Your task to perform on an android device: open chrome and create a bookmark for the current page Image 0: 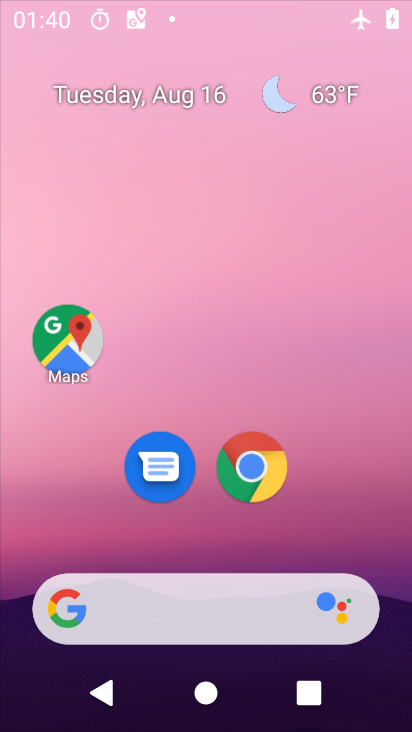
Step 0: press home button
Your task to perform on an android device: open chrome and create a bookmark for the current page Image 1: 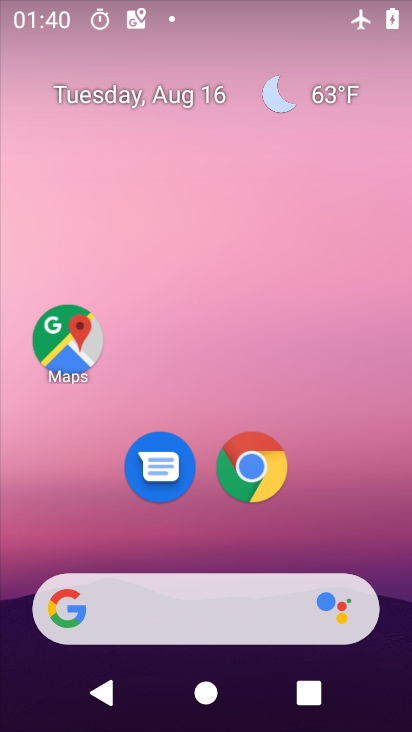
Step 1: drag from (379, 546) to (403, 155)
Your task to perform on an android device: open chrome and create a bookmark for the current page Image 2: 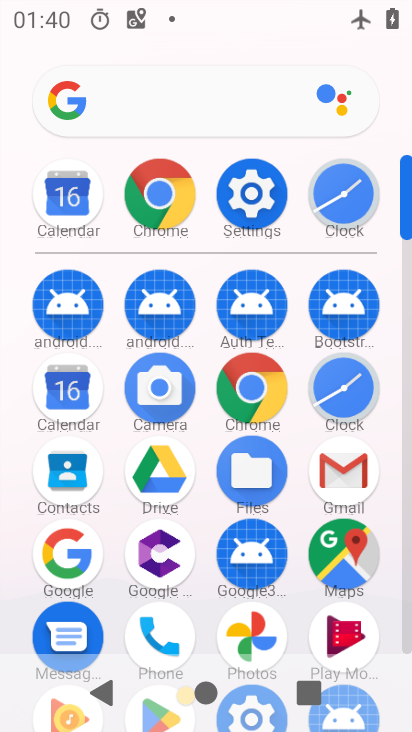
Step 2: click (264, 395)
Your task to perform on an android device: open chrome and create a bookmark for the current page Image 3: 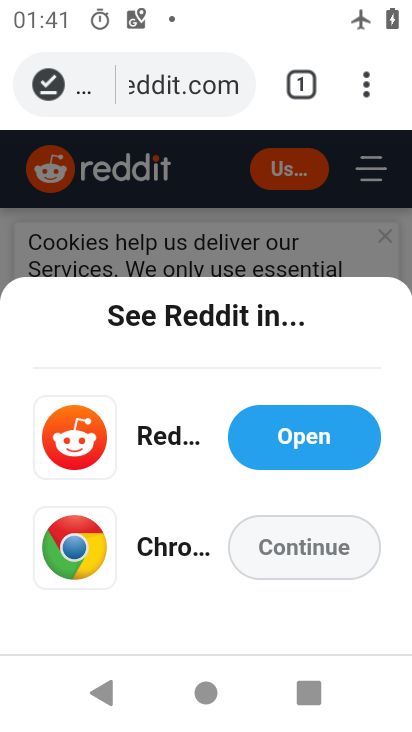
Step 3: click (368, 76)
Your task to perform on an android device: open chrome and create a bookmark for the current page Image 4: 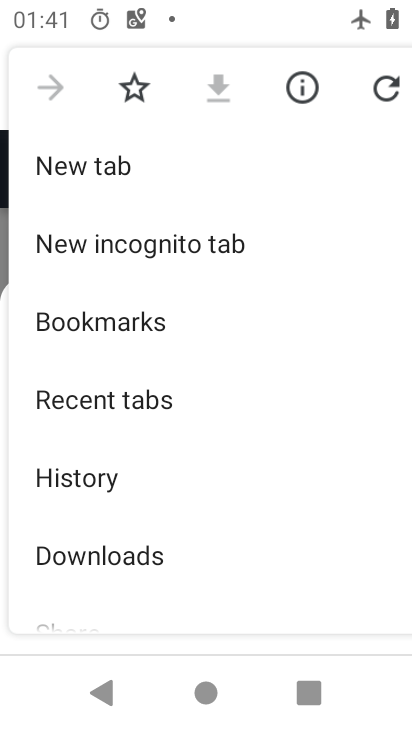
Step 4: click (134, 86)
Your task to perform on an android device: open chrome and create a bookmark for the current page Image 5: 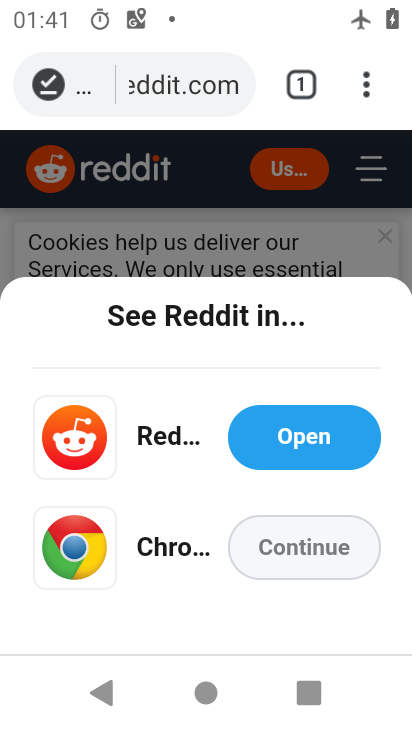
Step 5: task complete